Your task to perform on an android device: What's on my calendar tomorrow? Image 0: 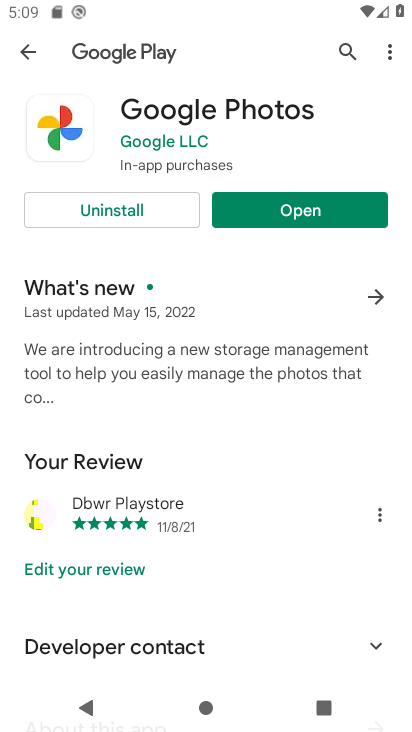
Step 0: press home button
Your task to perform on an android device: What's on my calendar tomorrow? Image 1: 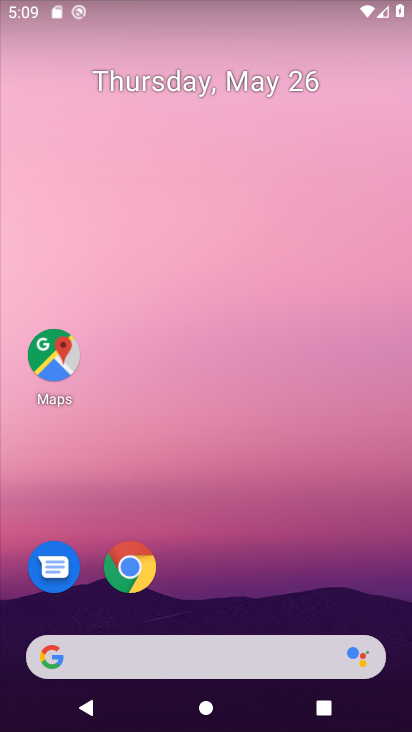
Step 1: drag from (245, 551) to (214, 53)
Your task to perform on an android device: What's on my calendar tomorrow? Image 2: 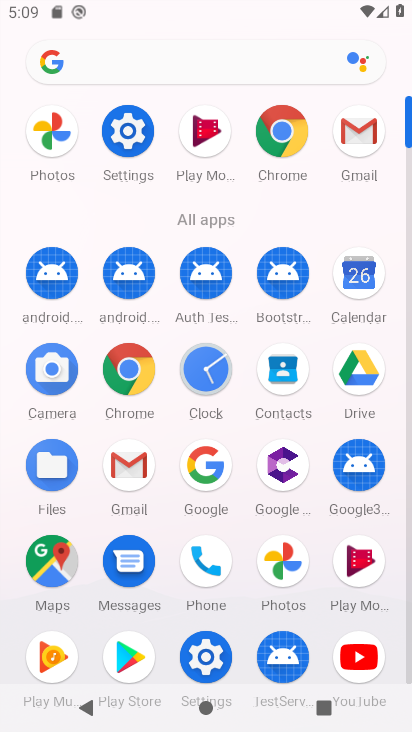
Step 2: click (357, 278)
Your task to perform on an android device: What's on my calendar tomorrow? Image 3: 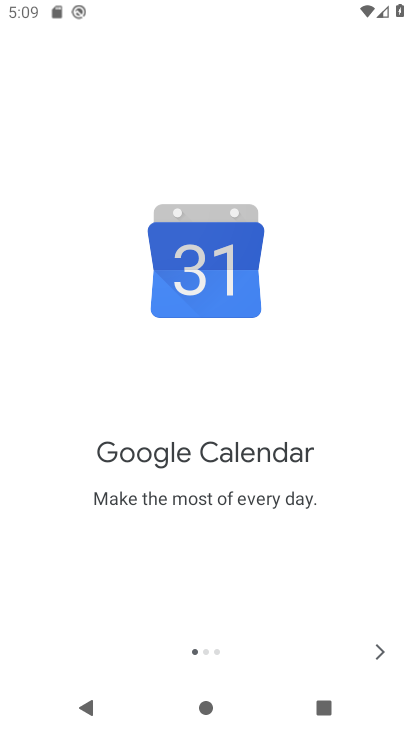
Step 3: click (375, 656)
Your task to perform on an android device: What's on my calendar tomorrow? Image 4: 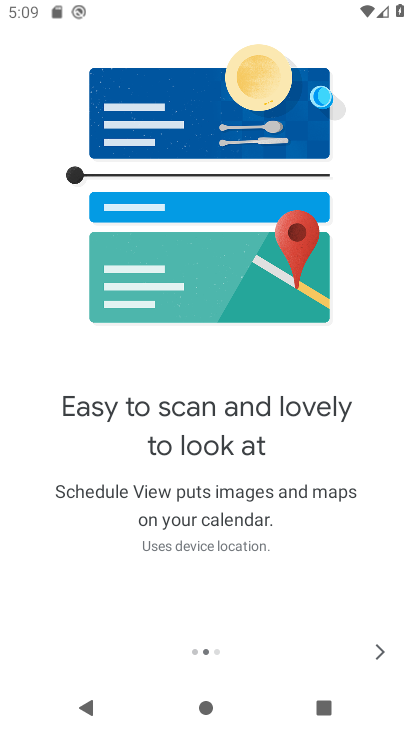
Step 4: click (375, 655)
Your task to perform on an android device: What's on my calendar tomorrow? Image 5: 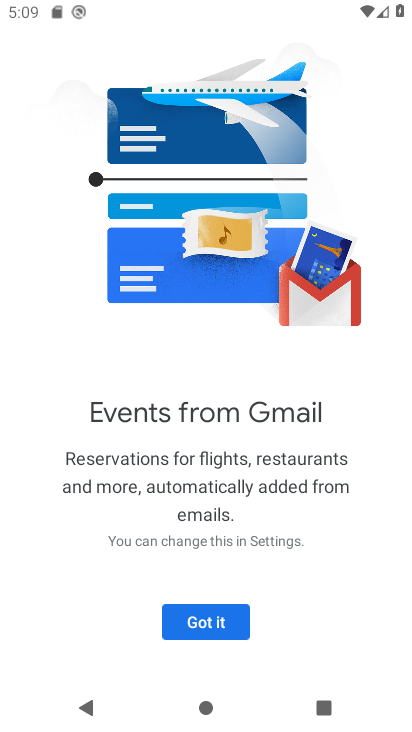
Step 5: click (376, 653)
Your task to perform on an android device: What's on my calendar tomorrow? Image 6: 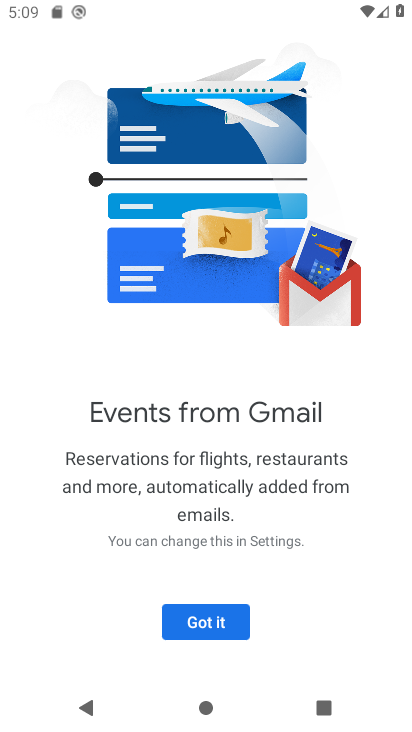
Step 6: click (205, 622)
Your task to perform on an android device: What's on my calendar tomorrow? Image 7: 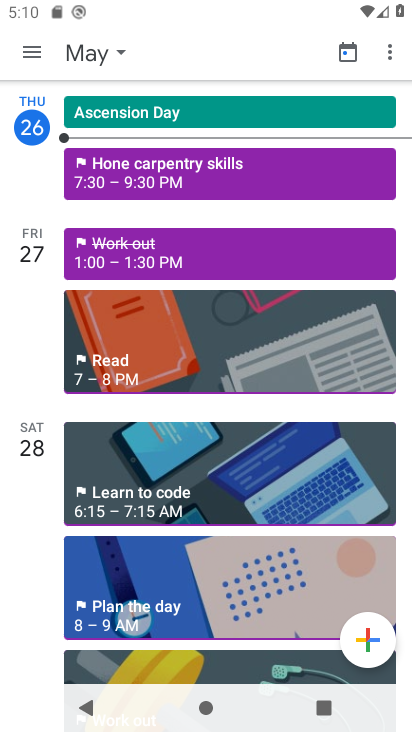
Step 7: task complete